Your task to perform on an android device: Go to notification settings Image 0: 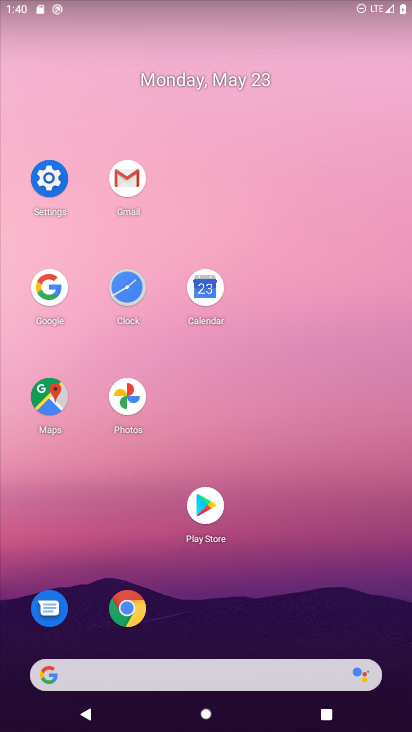
Step 0: click (53, 185)
Your task to perform on an android device: Go to notification settings Image 1: 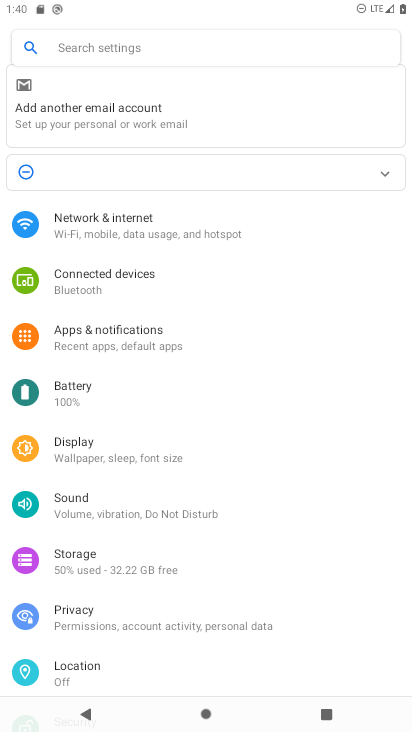
Step 1: click (200, 327)
Your task to perform on an android device: Go to notification settings Image 2: 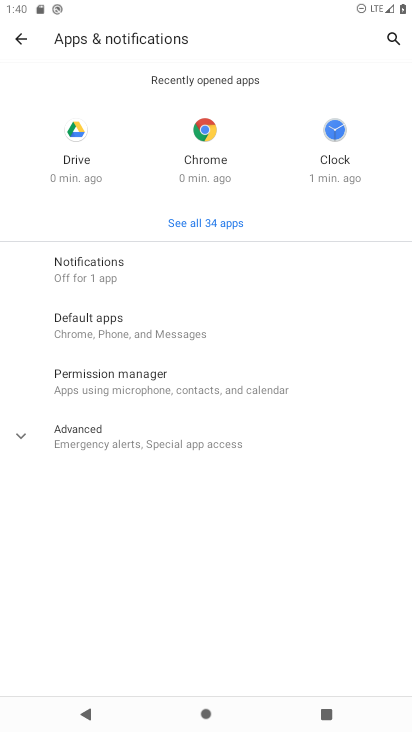
Step 2: task complete